Your task to perform on an android device: Go to CNN.com Image 0: 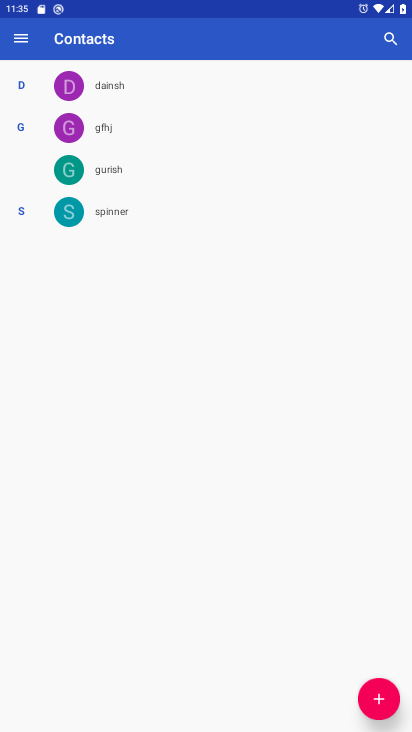
Step 0: press home button
Your task to perform on an android device: Go to CNN.com Image 1: 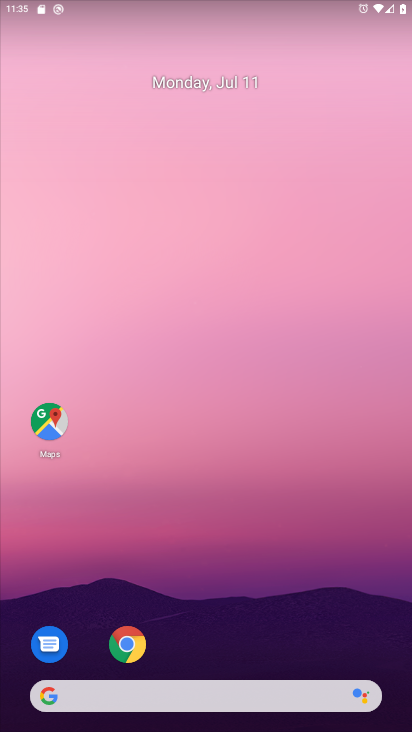
Step 1: click (120, 643)
Your task to perform on an android device: Go to CNN.com Image 2: 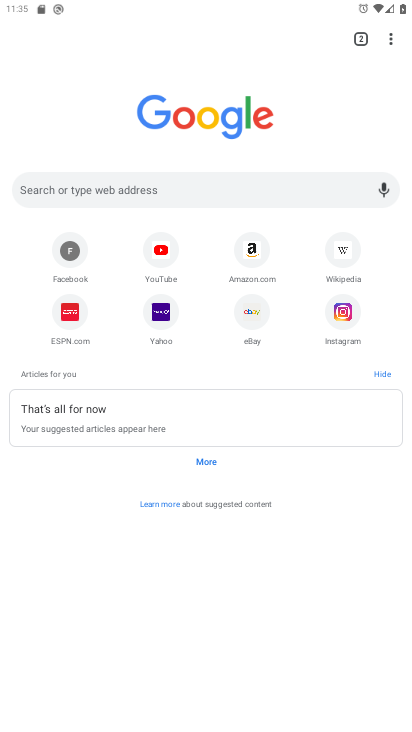
Step 2: click (87, 179)
Your task to perform on an android device: Go to CNN.com Image 3: 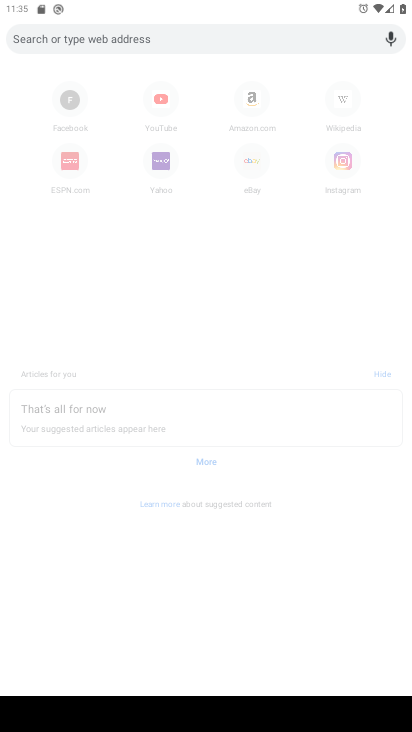
Step 3: type "CNN.com"
Your task to perform on an android device: Go to CNN.com Image 4: 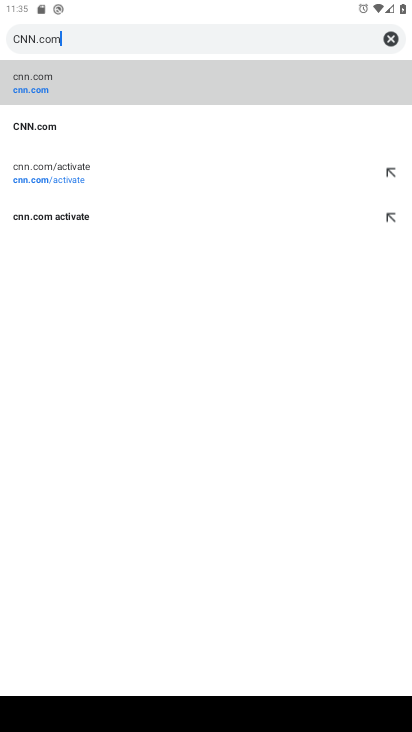
Step 4: click (241, 82)
Your task to perform on an android device: Go to CNN.com Image 5: 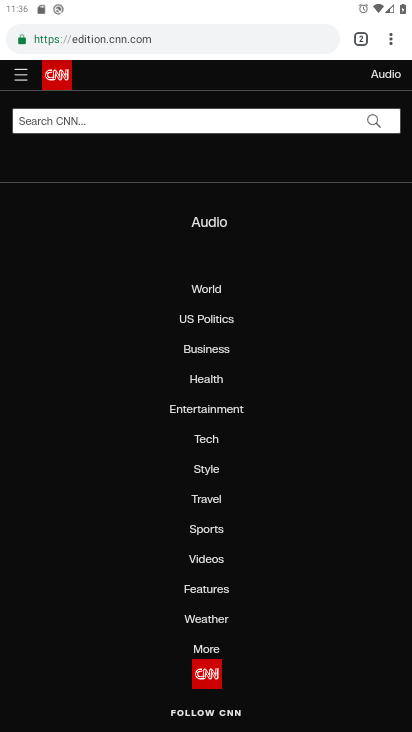
Step 5: task complete